Your task to perform on an android device: Open calendar and show me the second week of next month Image 0: 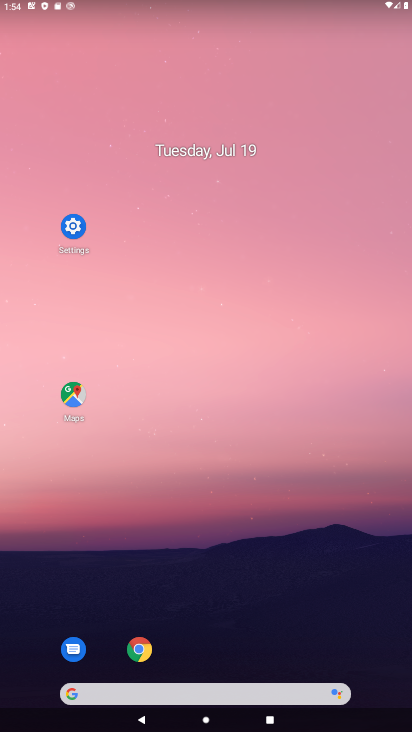
Step 0: drag from (274, 645) to (319, 83)
Your task to perform on an android device: Open calendar and show me the second week of next month Image 1: 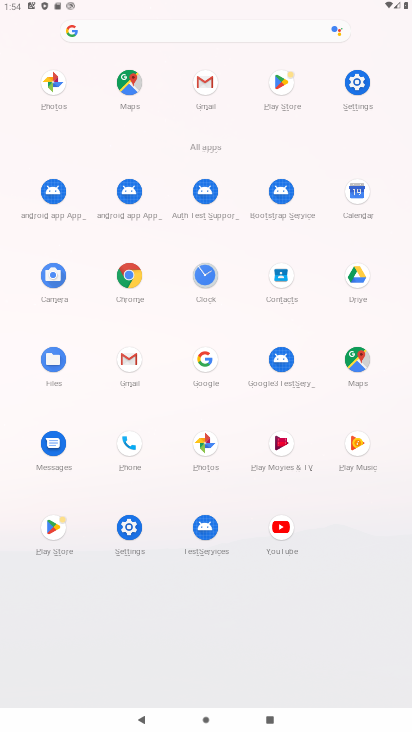
Step 1: drag from (353, 193) to (174, 182)
Your task to perform on an android device: Open calendar and show me the second week of next month Image 2: 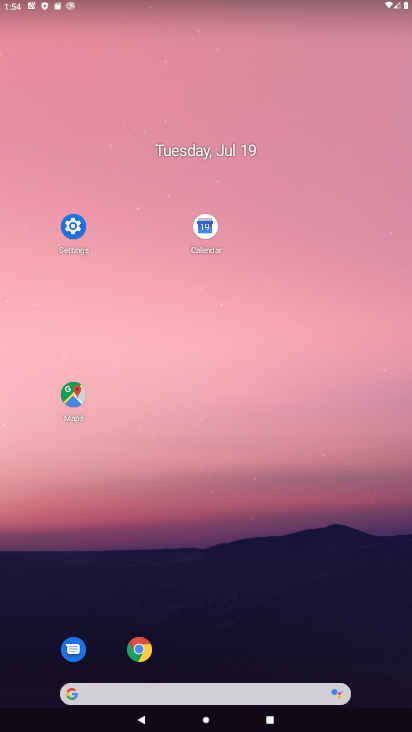
Step 2: click (204, 216)
Your task to perform on an android device: Open calendar and show me the second week of next month Image 3: 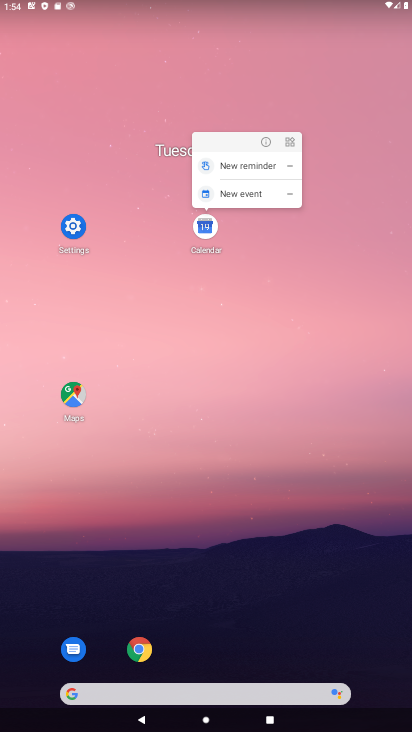
Step 3: click (198, 228)
Your task to perform on an android device: Open calendar and show me the second week of next month Image 4: 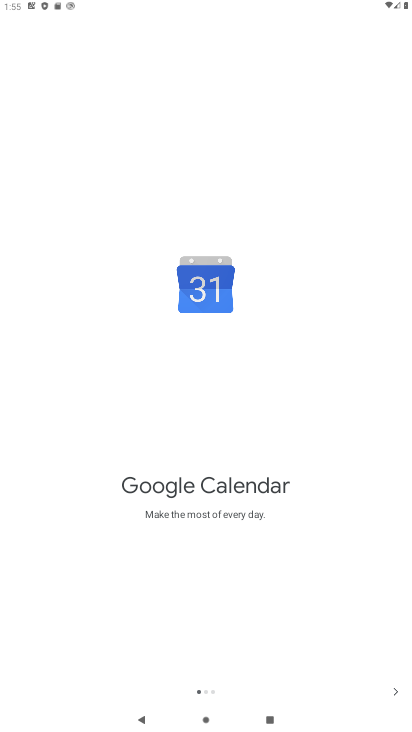
Step 4: click (395, 695)
Your task to perform on an android device: Open calendar and show me the second week of next month Image 5: 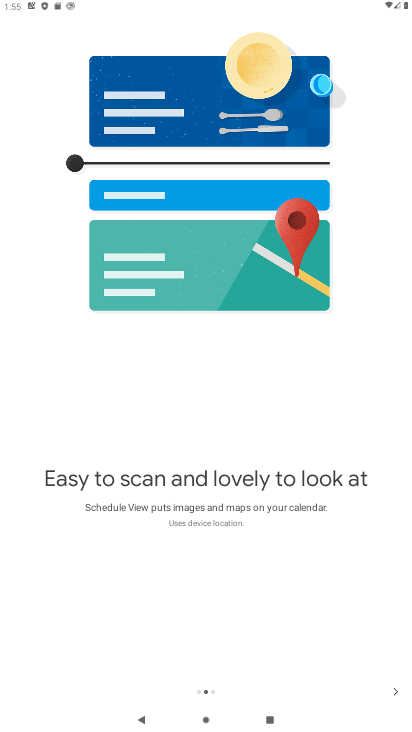
Step 5: click (395, 695)
Your task to perform on an android device: Open calendar and show me the second week of next month Image 6: 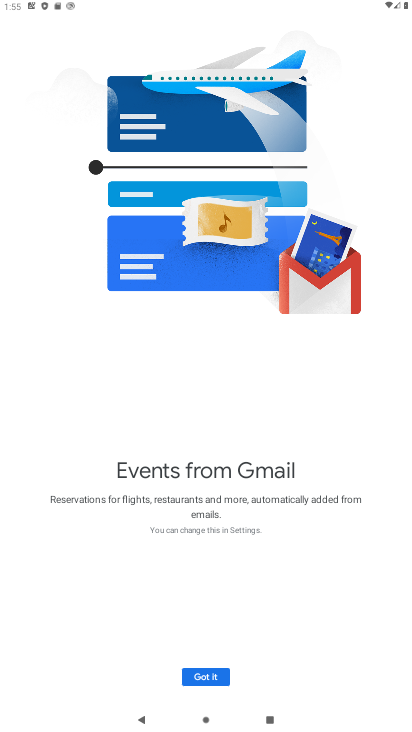
Step 6: click (205, 663)
Your task to perform on an android device: Open calendar and show me the second week of next month Image 7: 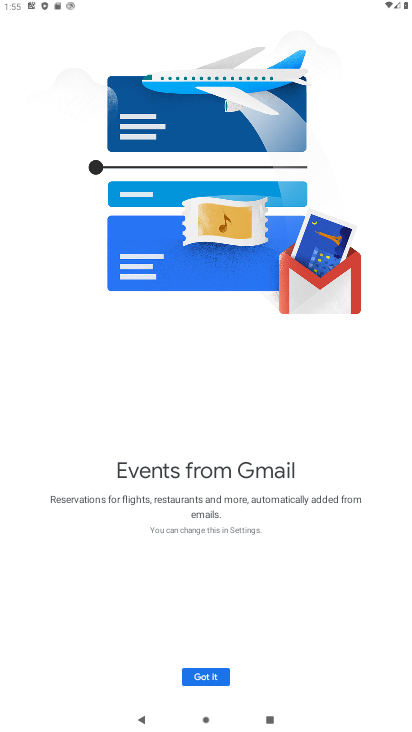
Step 7: click (213, 672)
Your task to perform on an android device: Open calendar and show me the second week of next month Image 8: 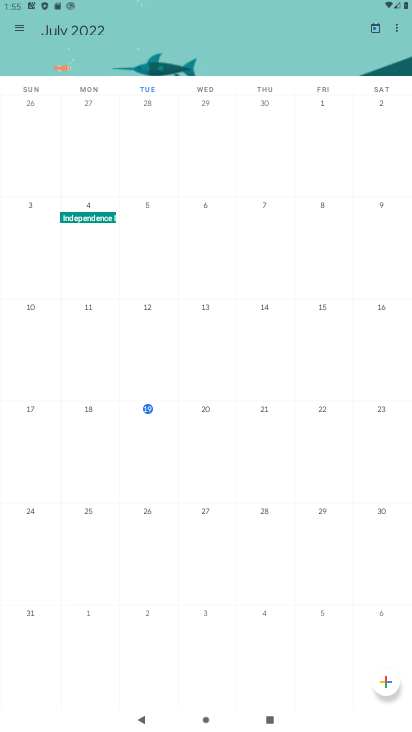
Step 8: click (61, 36)
Your task to perform on an android device: Open calendar and show me the second week of next month Image 9: 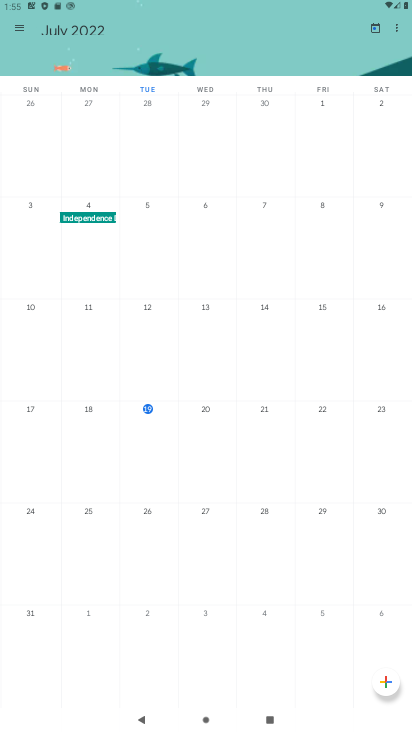
Step 9: click (86, 22)
Your task to perform on an android device: Open calendar and show me the second week of next month Image 10: 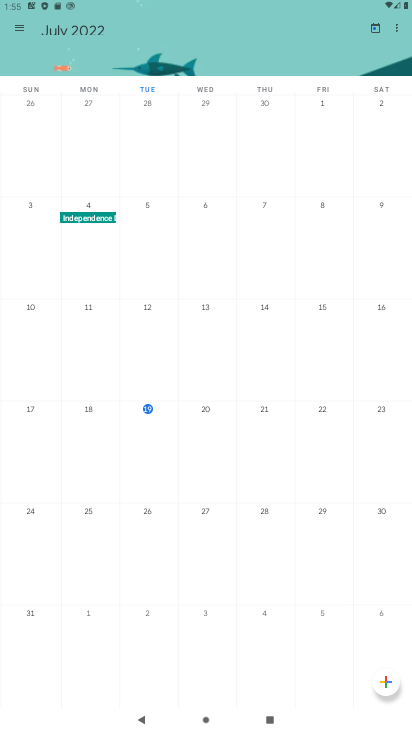
Step 10: drag from (379, 275) to (12, 173)
Your task to perform on an android device: Open calendar and show me the second week of next month Image 11: 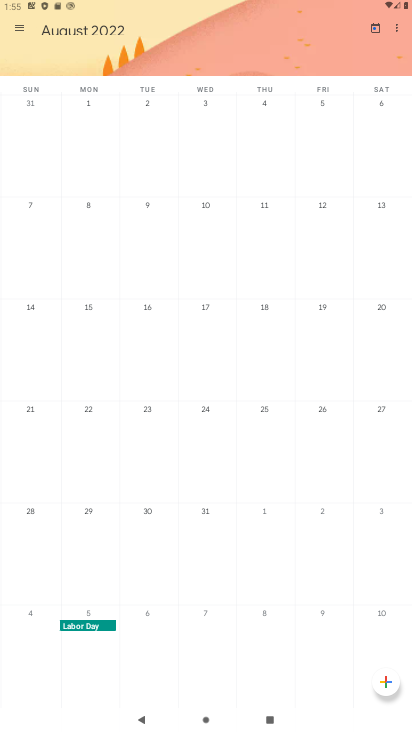
Step 11: click (27, 30)
Your task to perform on an android device: Open calendar and show me the second week of next month Image 12: 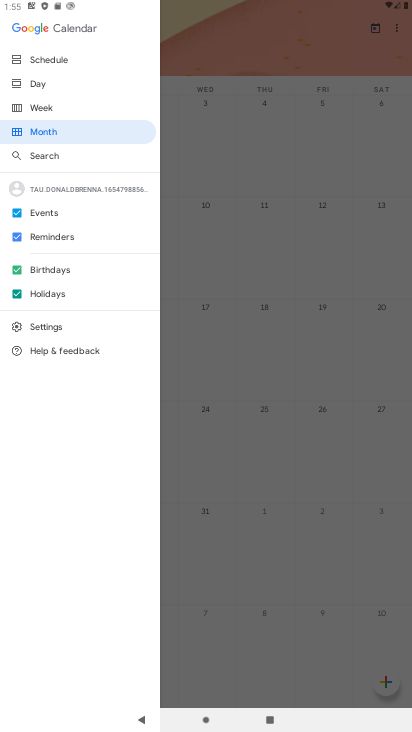
Step 12: click (62, 109)
Your task to perform on an android device: Open calendar and show me the second week of next month Image 13: 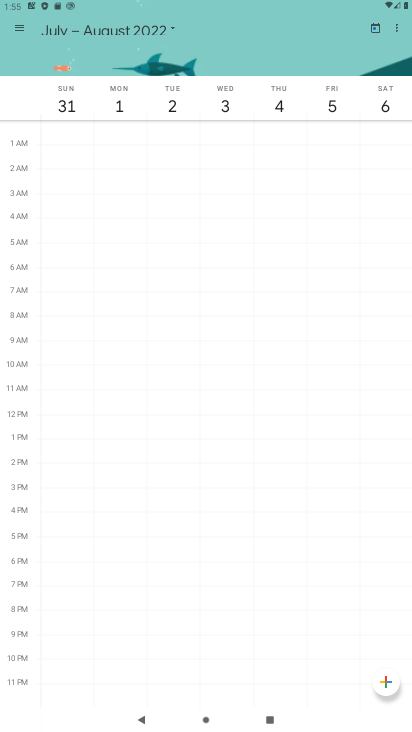
Step 13: task complete